Your task to perform on an android device: Open Chrome and go to the settings page Image 0: 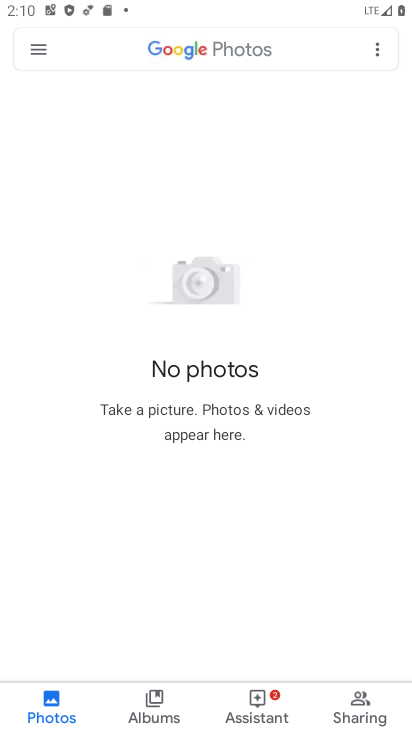
Step 0: press home button
Your task to perform on an android device: Open Chrome and go to the settings page Image 1: 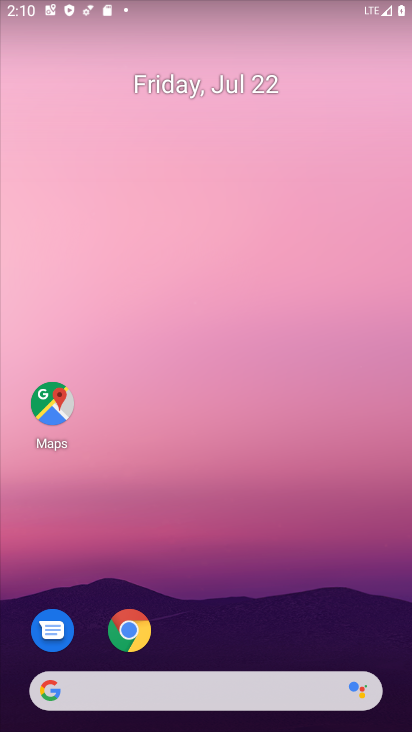
Step 1: drag from (208, 659) to (394, 528)
Your task to perform on an android device: Open Chrome and go to the settings page Image 2: 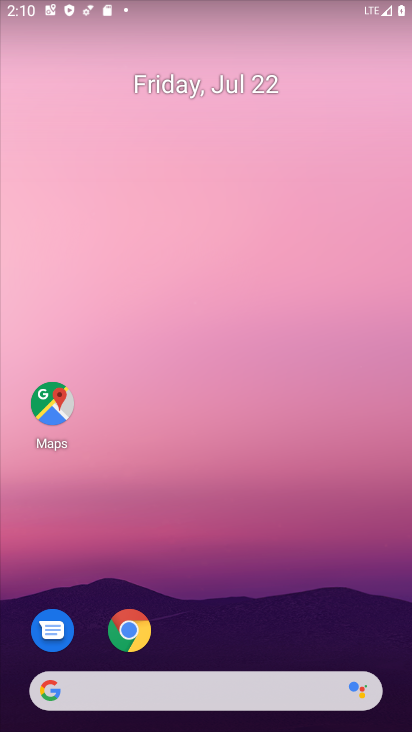
Step 2: drag from (207, 644) to (293, 10)
Your task to perform on an android device: Open Chrome and go to the settings page Image 3: 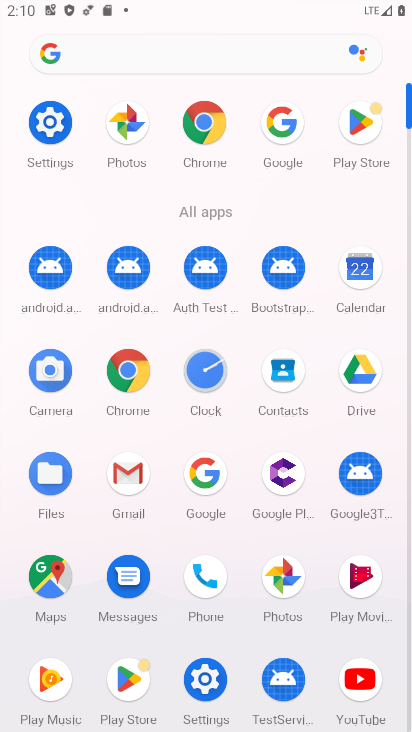
Step 3: click (109, 383)
Your task to perform on an android device: Open Chrome and go to the settings page Image 4: 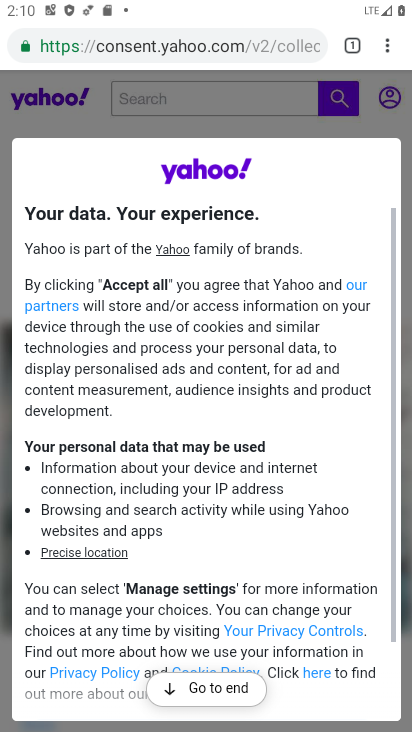
Step 4: task complete